Your task to perform on an android device: Go to calendar. Show me events next week Image 0: 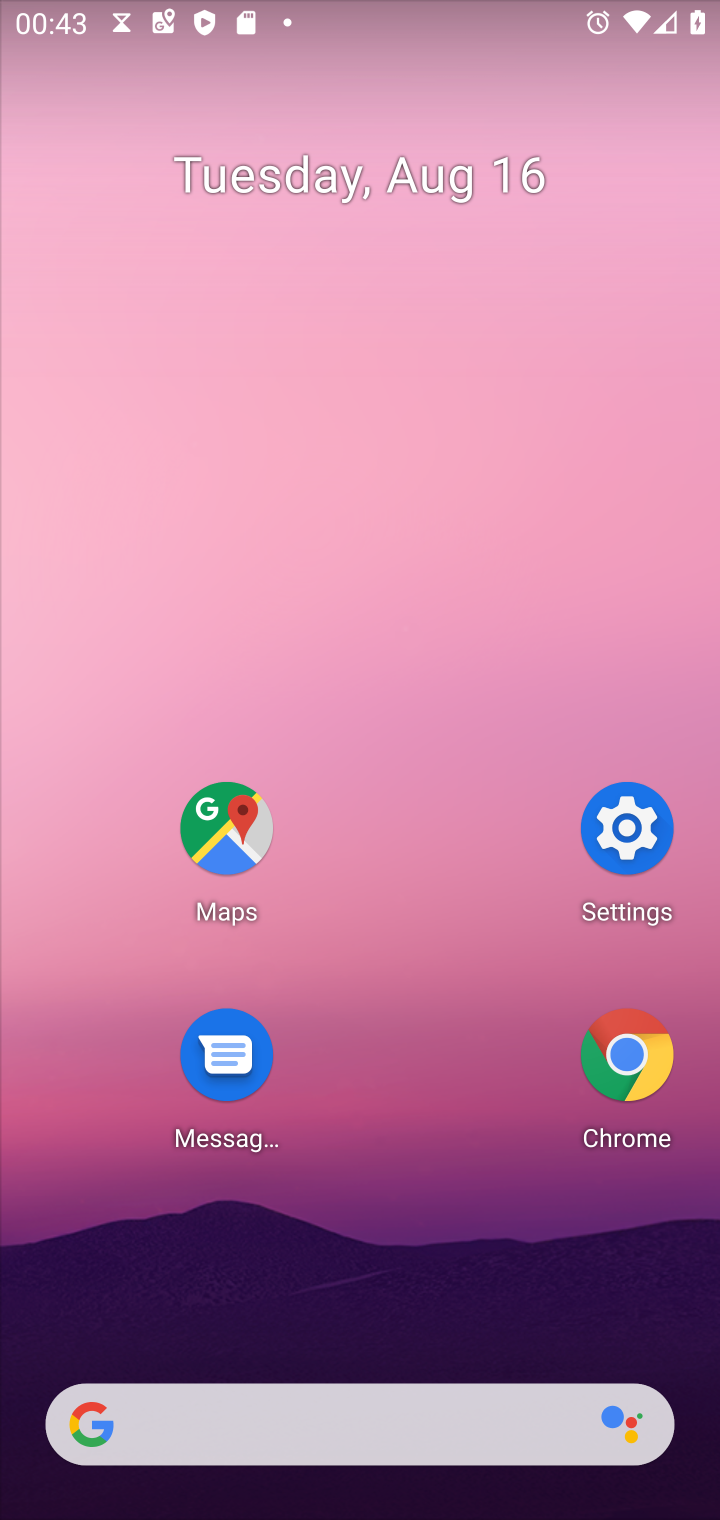
Step 0: drag from (467, 613) to (509, 234)
Your task to perform on an android device: Go to calendar. Show me events next week Image 1: 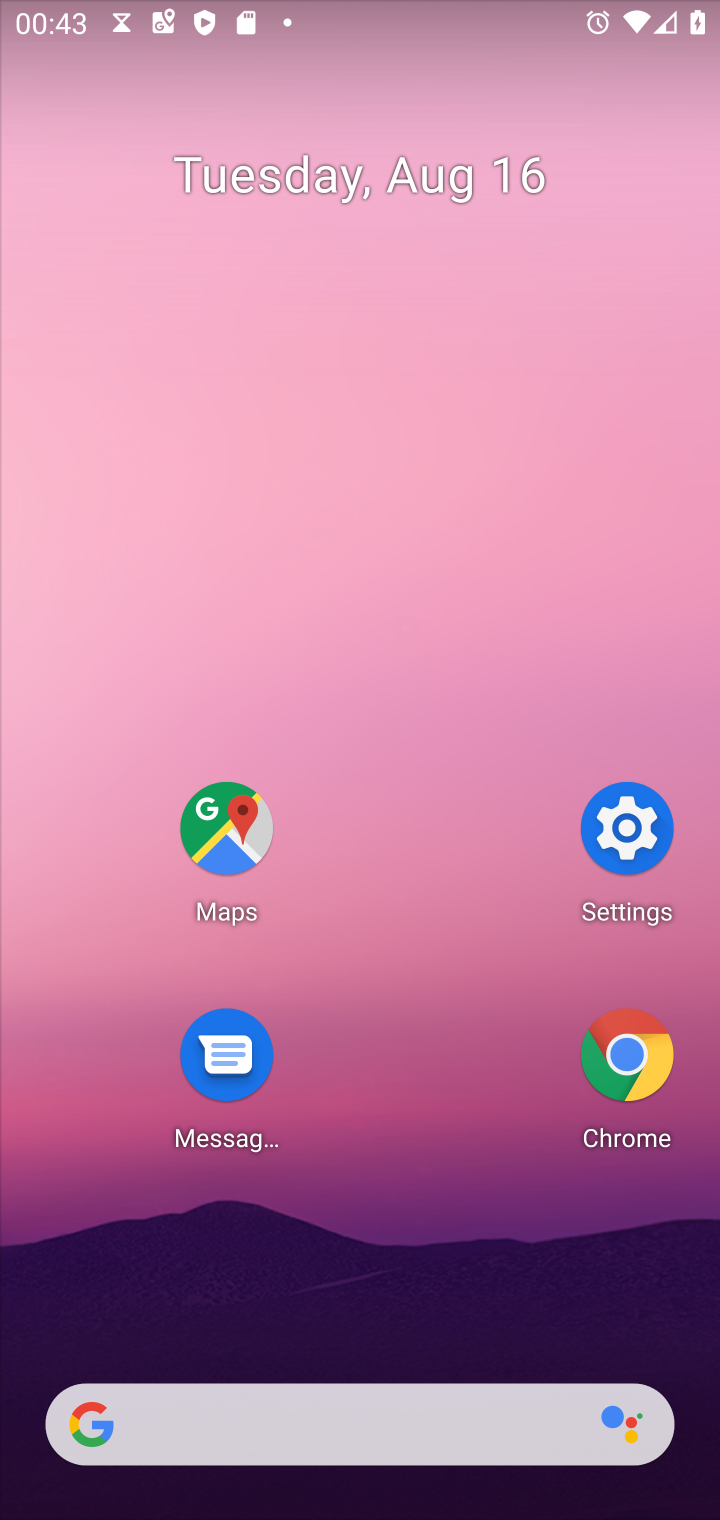
Step 1: drag from (441, 983) to (563, 78)
Your task to perform on an android device: Go to calendar. Show me events next week Image 2: 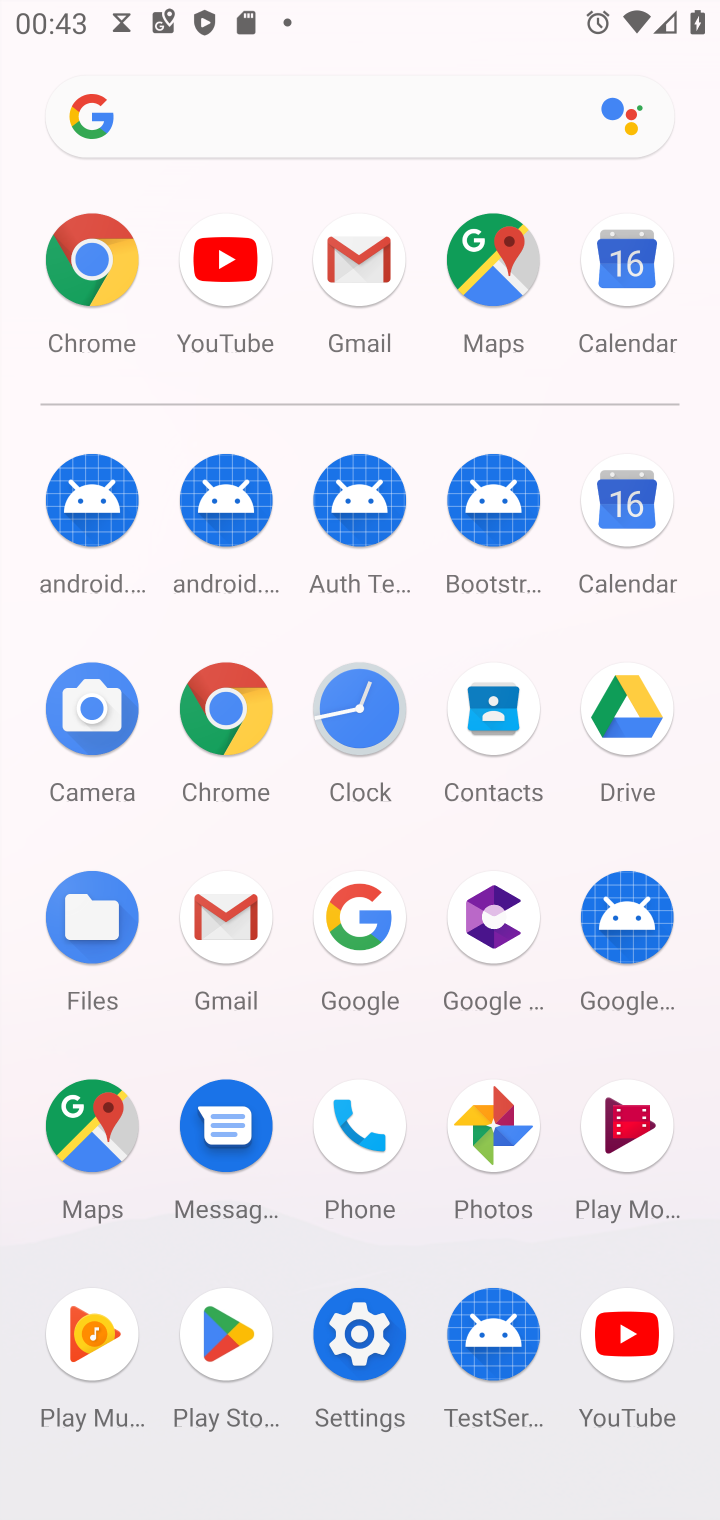
Step 2: click (645, 518)
Your task to perform on an android device: Go to calendar. Show me events next week Image 3: 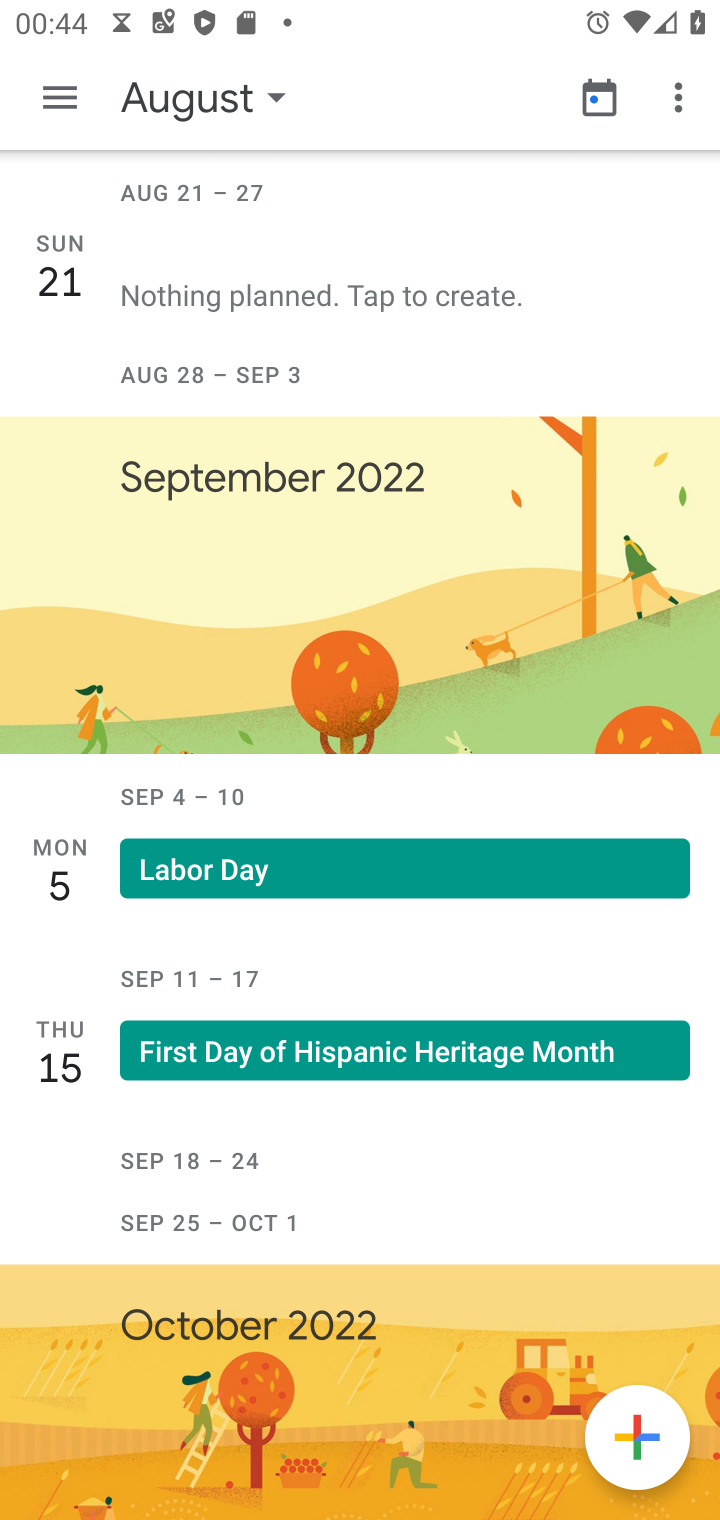
Step 3: task complete